Your task to perform on an android device: Open Chrome and go to settings Image 0: 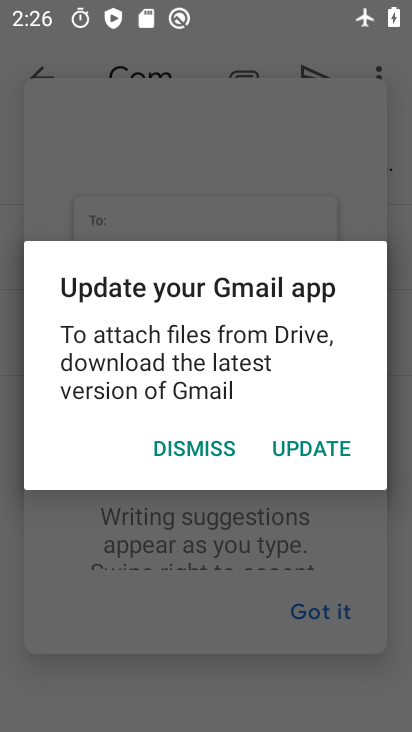
Step 0: press home button
Your task to perform on an android device: Open Chrome and go to settings Image 1: 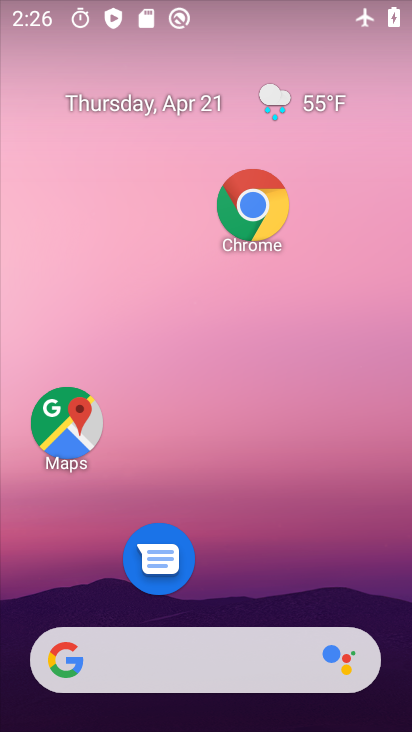
Step 1: drag from (201, 613) to (165, 21)
Your task to perform on an android device: Open Chrome and go to settings Image 2: 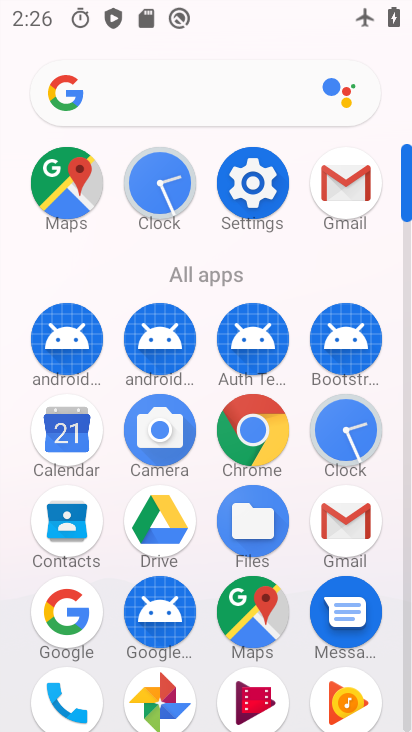
Step 2: click (243, 438)
Your task to perform on an android device: Open Chrome and go to settings Image 3: 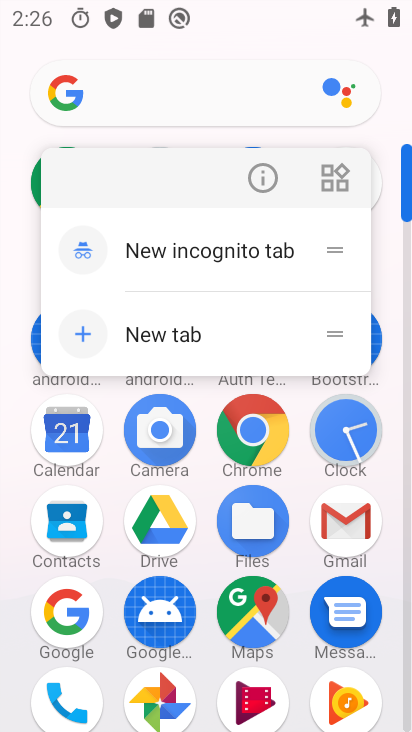
Step 3: click (252, 431)
Your task to perform on an android device: Open Chrome and go to settings Image 4: 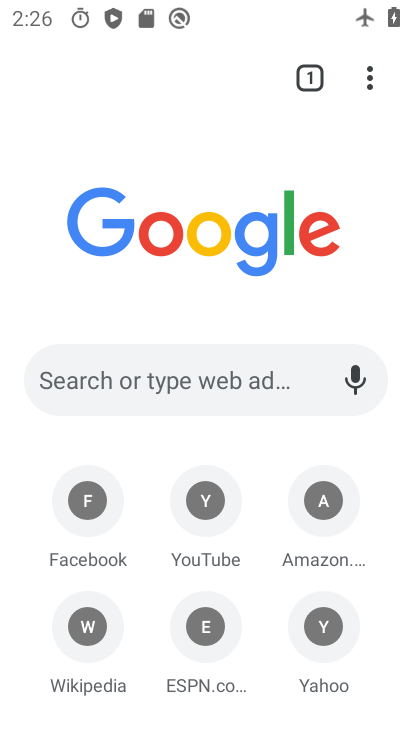
Step 4: task complete